Your task to perform on an android device: turn pop-ups on in chrome Image 0: 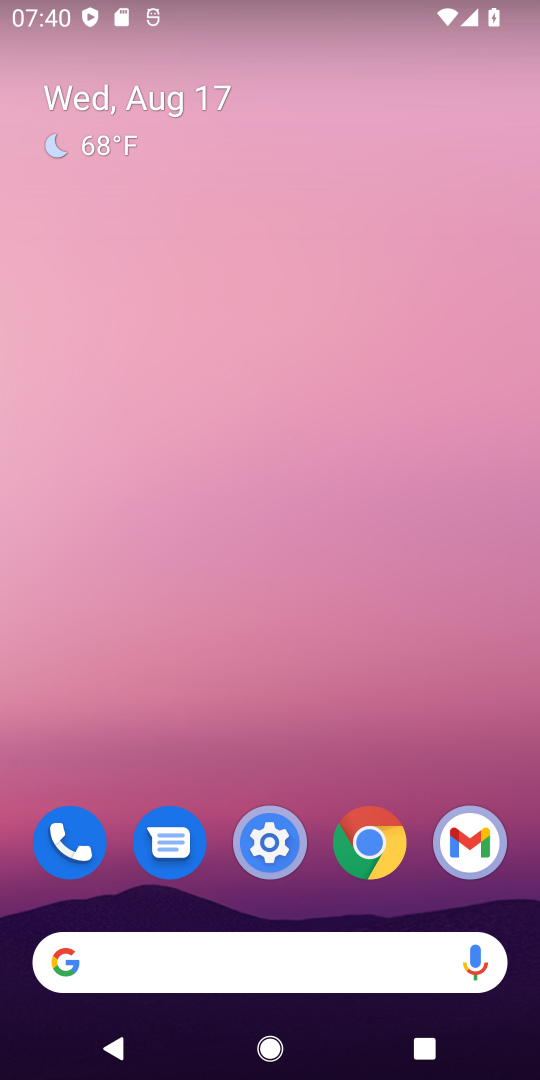
Step 0: click (371, 833)
Your task to perform on an android device: turn pop-ups on in chrome Image 1: 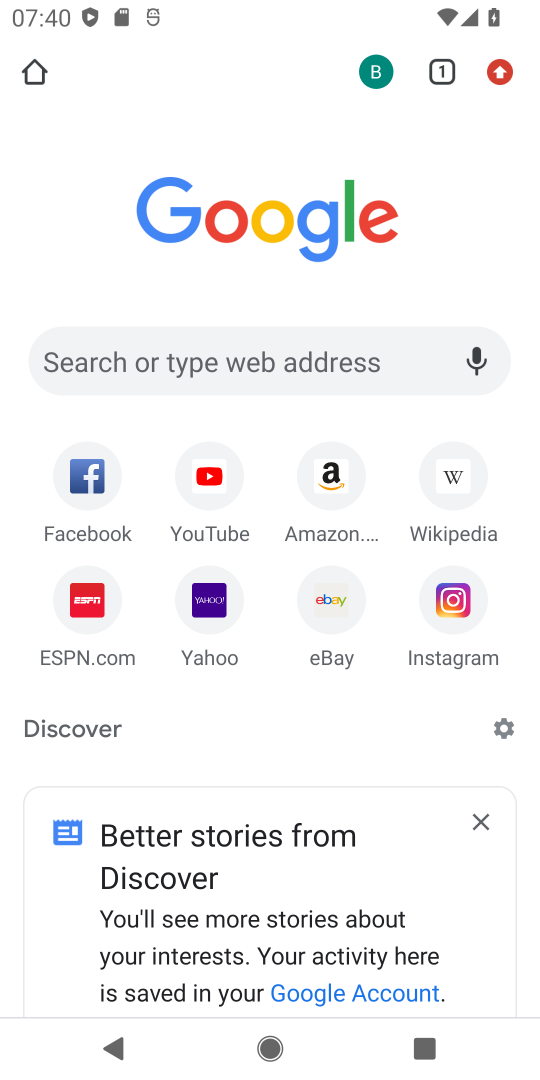
Step 1: click (500, 72)
Your task to perform on an android device: turn pop-ups on in chrome Image 2: 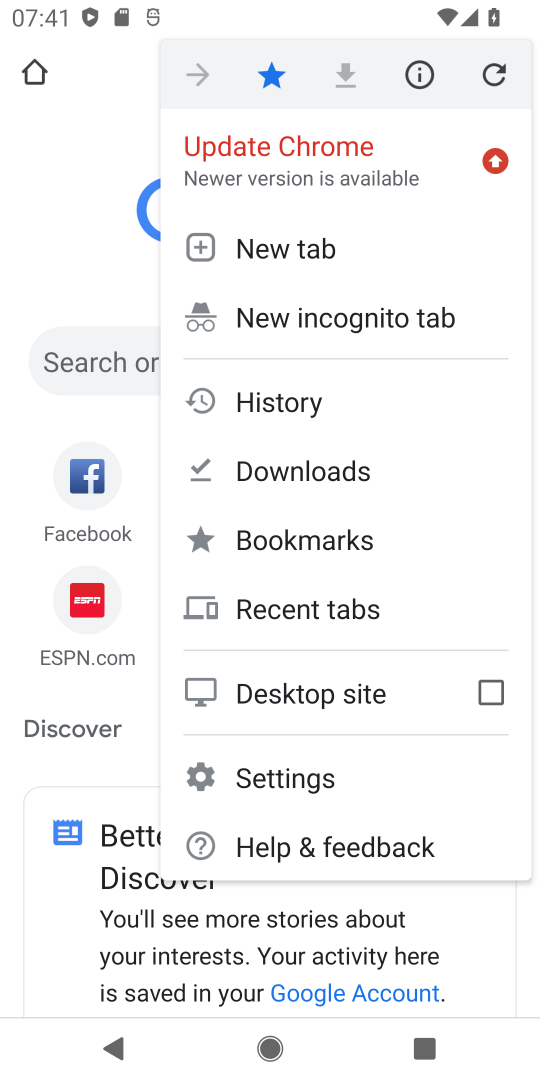
Step 2: click (316, 780)
Your task to perform on an android device: turn pop-ups on in chrome Image 3: 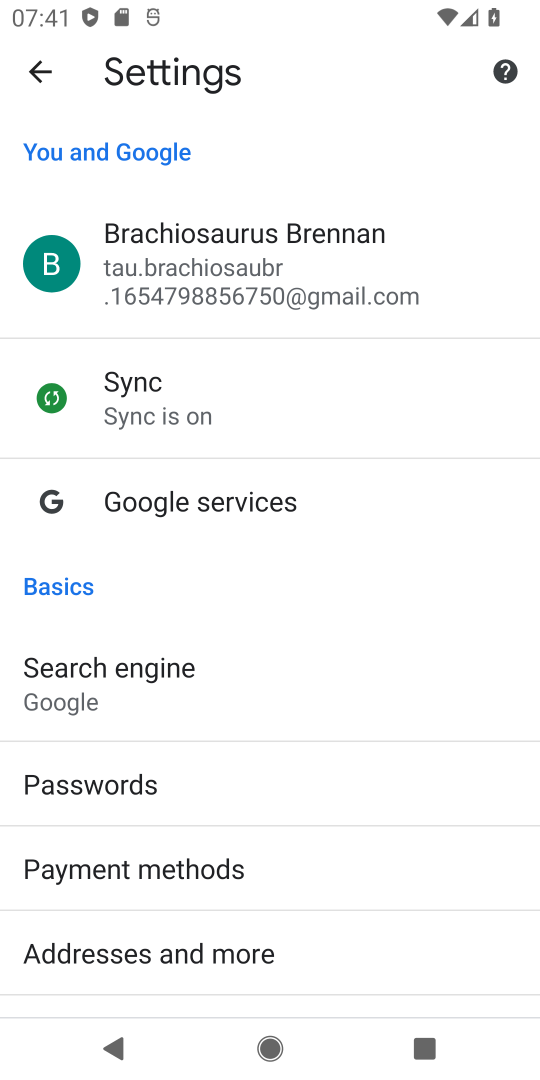
Step 3: drag from (357, 808) to (442, 125)
Your task to perform on an android device: turn pop-ups on in chrome Image 4: 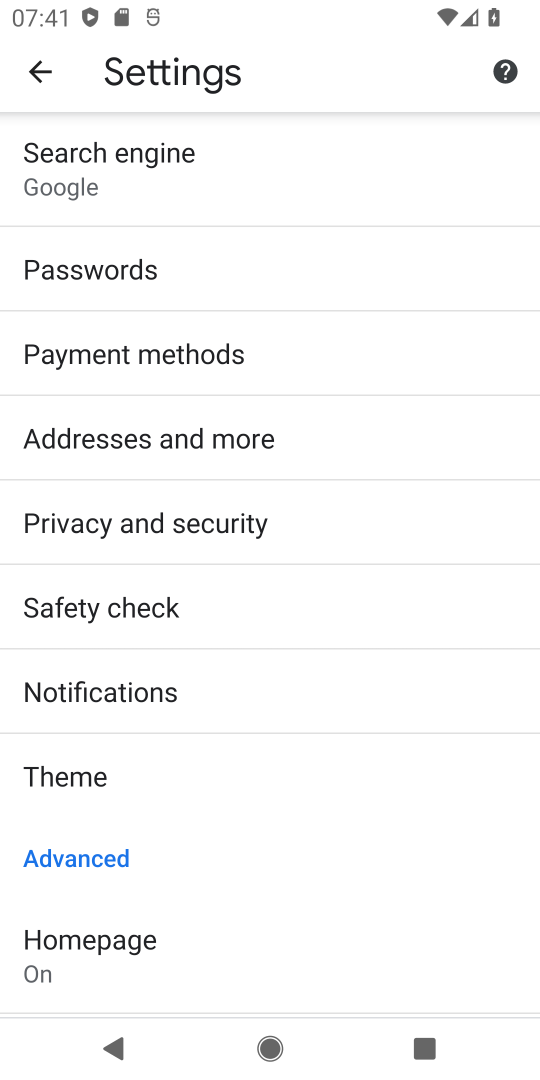
Step 4: drag from (266, 761) to (233, 135)
Your task to perform on an android device: turn pop-ups on in chrome Image 5: 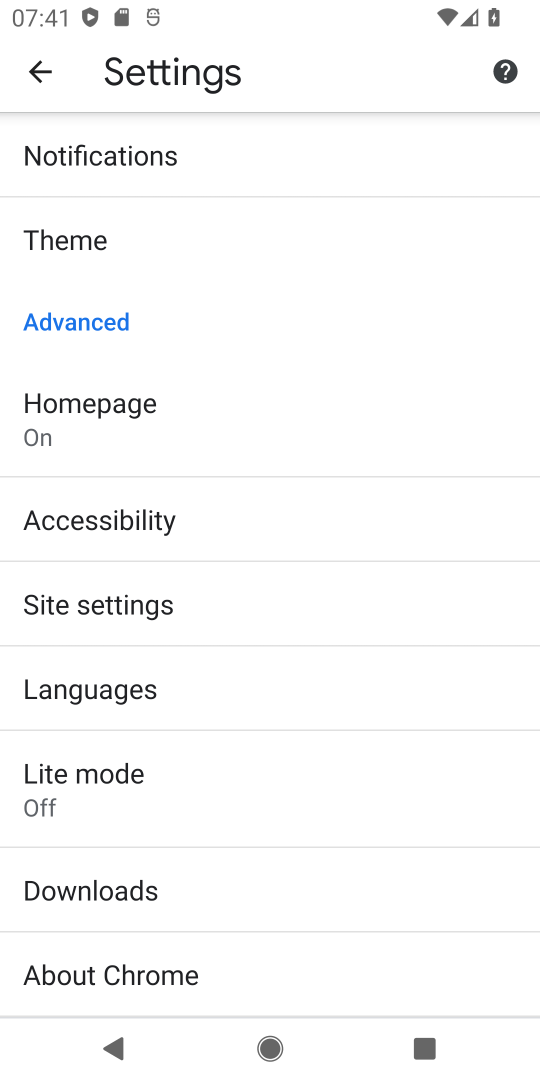
Step 5: drag from (295, 697) to (320, 139)
Your task to perform on an android device: turn pop-ups on in chrome Image 6: 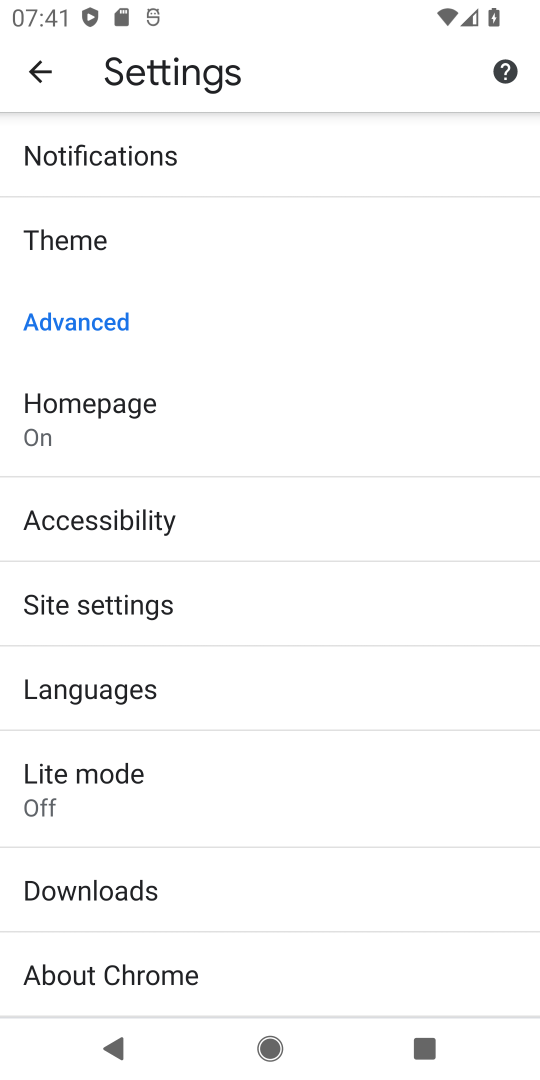
Step 6: drag from (296, 323) to (288, 776)
Your task to perform on an android device: turn pop-ups on in chrome Image 7: 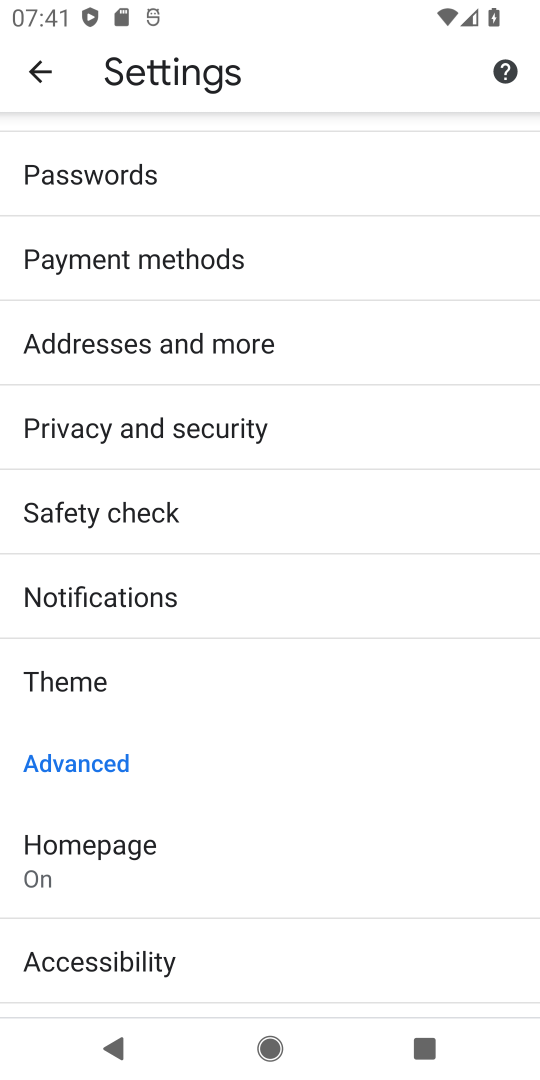
Step 7: drag from (288, 725) to (347, 234)
Your task to perform on an android device: turn pop-ups on in chrome Image 8: 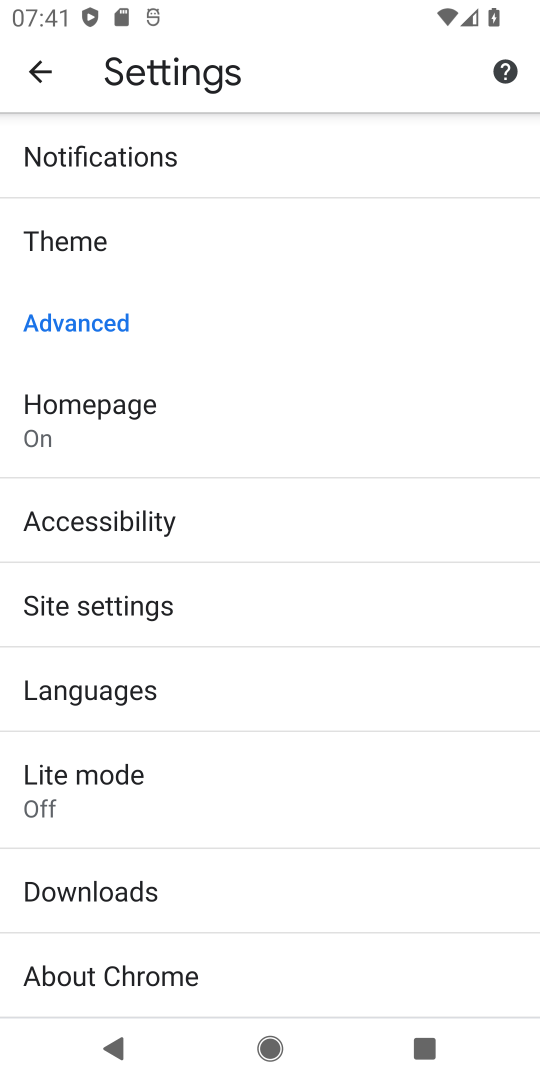
Step 8: click (138, 607)
Your task to perform on an android device: turn pop-ups on in chrome Image 9: 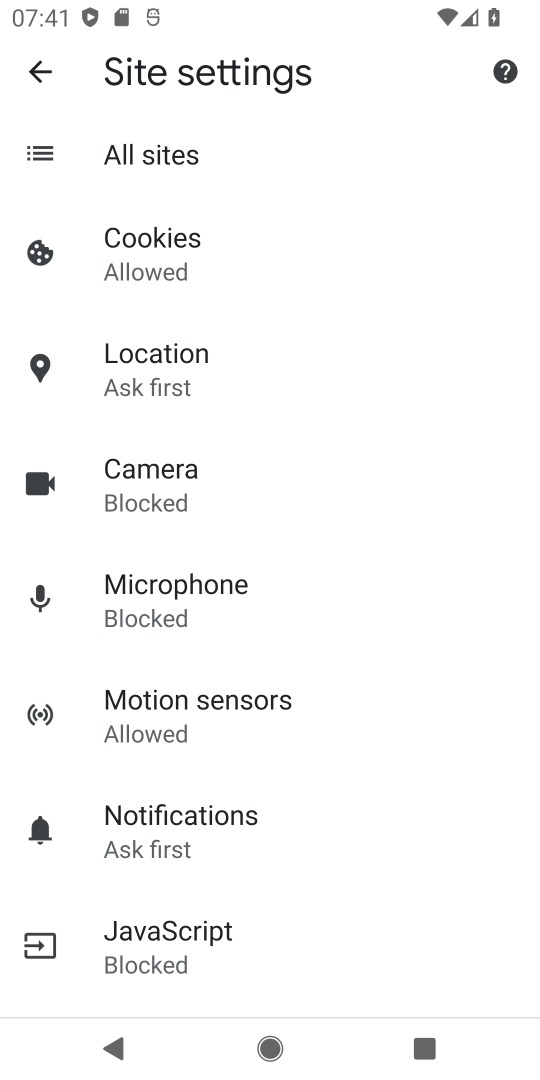
Step 9: drag from (326, 775) to (385, 315)
Your task to perform on an android device: turn pop-ups on in chrome Image 10: 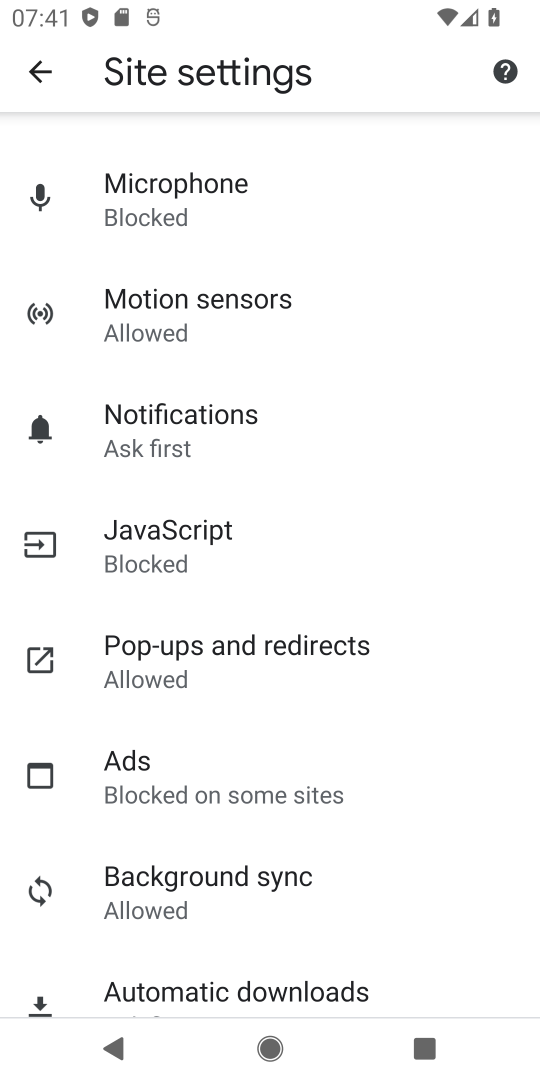
Step 10: click (280, 654)
Your task to perform on an android device: turn pop-ups on in chrome Image 11: 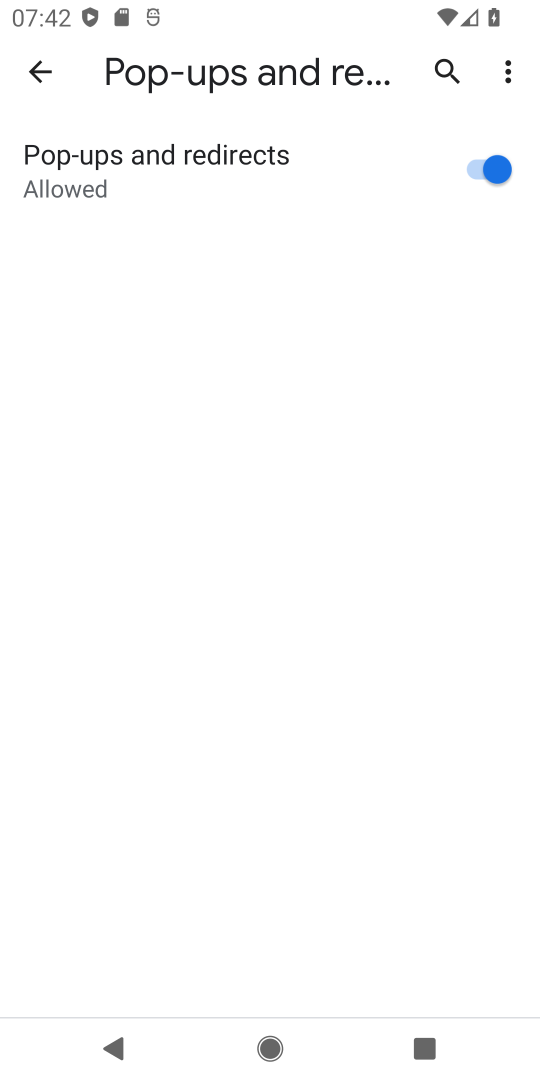
Step 11: task complete